Your task to perform on an android device: change text size in settings app Image 0: 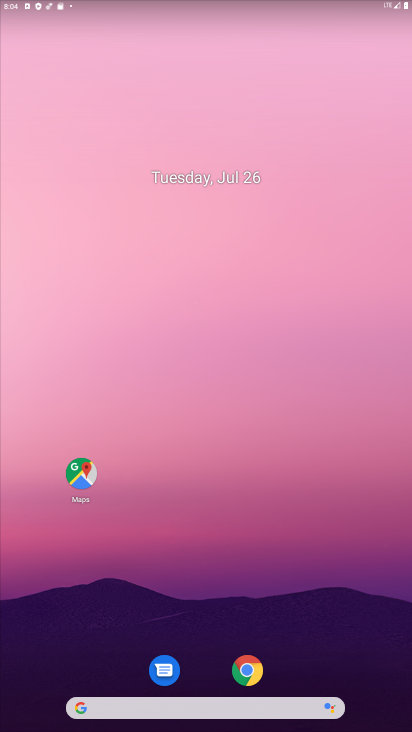
Step 0: drag from (195, 639) to (232, 102)
Your task to perform on an android device: change text size in settings app Image 1: 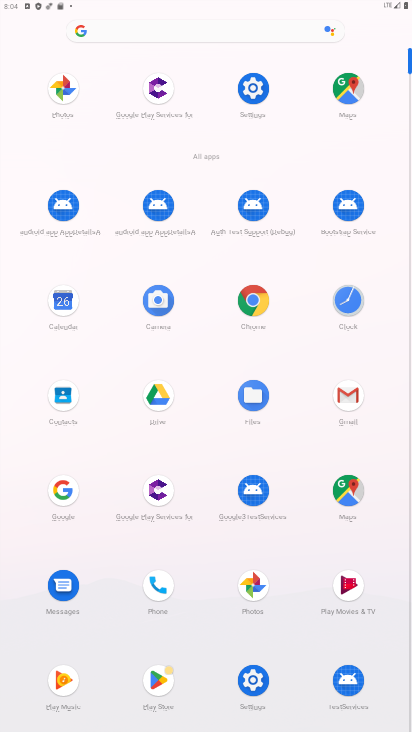
Step 1: click (262, 94)
Your task to perform on an android device: change text size in settings app Image 2: 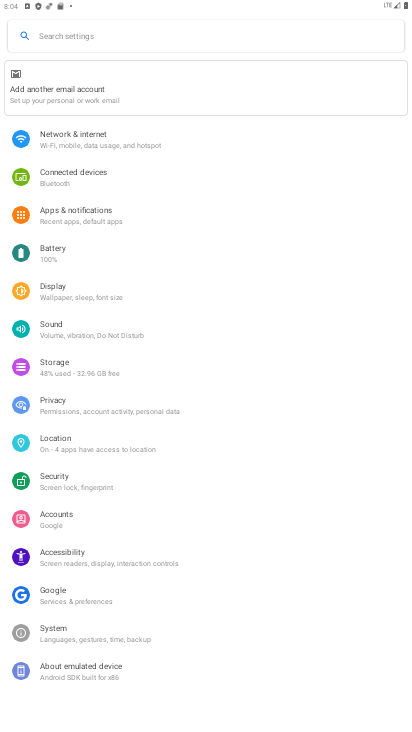
Step 2: click (66, 293)
Your task to perform on an android device: change text size in settings app Image 3: 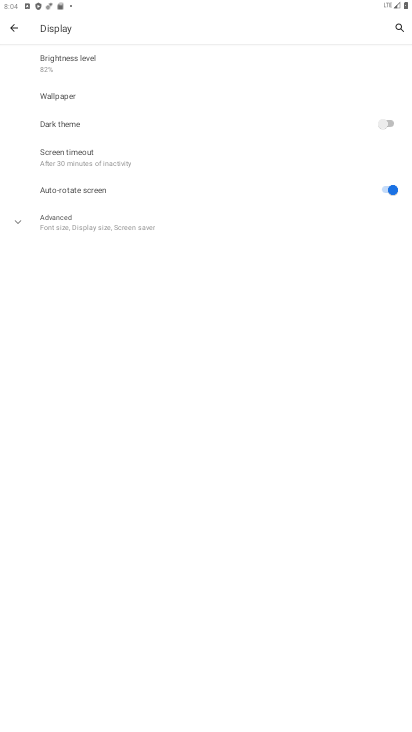
Step 3: click (66, 221)
Your task to perform on an android device: change text size in settings app Image 4: 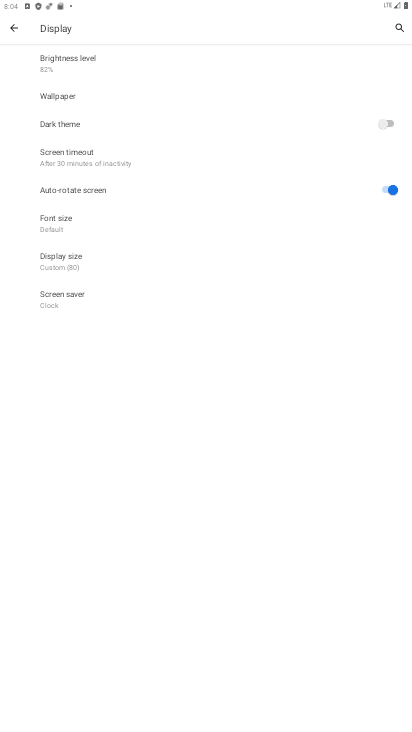
Step 4: click (69, 222)
Your task to perform on an android device: change text size in settings app Image 5: 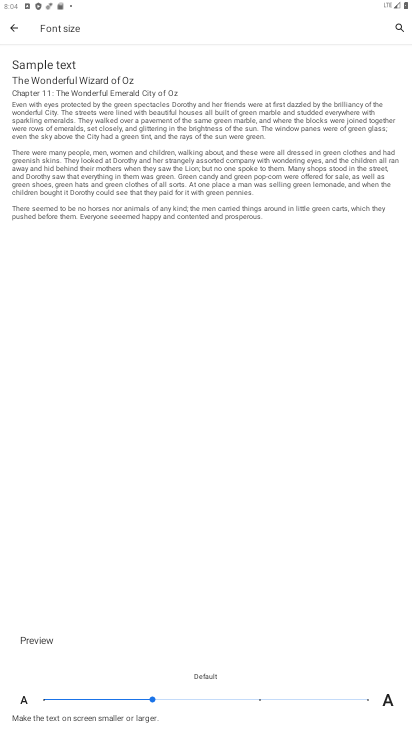
Step 5: click (363, 696)
Your task to perform on an android device: change text size in settings app Image 6: 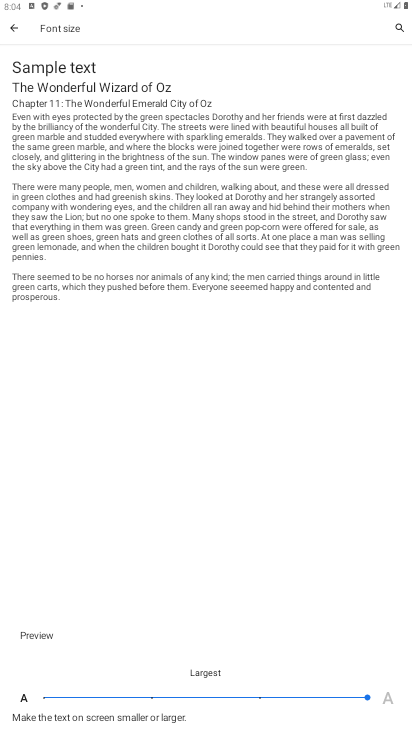
Step 6: task complete